Your task to perform on an android device: delete the emails in spam in the gmail app Image 0: 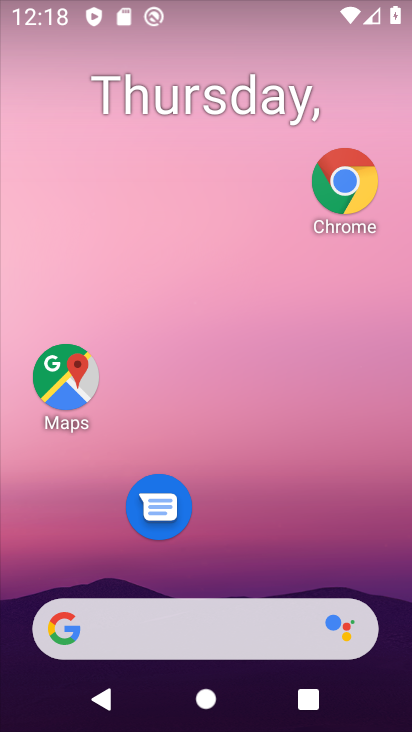
Step 0: drag from (172, 592) to (211, 342)
Your task to perform on an android device: delete the emails in spam in the gmail app Image 1: 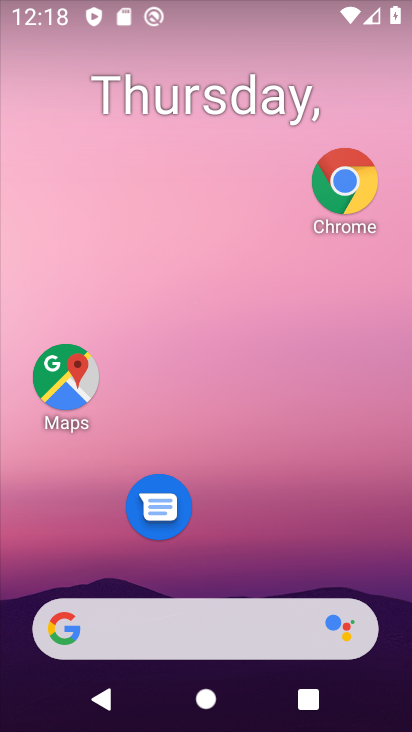
Step 1: drag from (163, 614) to (309, 0)
Your task to perform on an android device: delete the emails in spam in the gmail app Image 2: 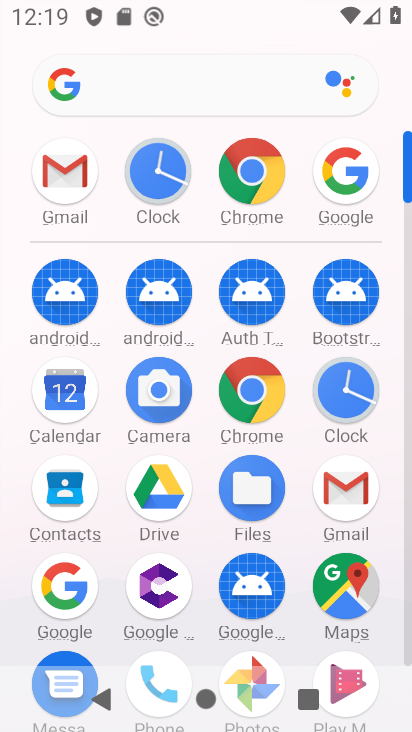
Step 2: click (349, 489)
Your task to perform on an android device: delete the emails in spam in the gmail app Image 3: 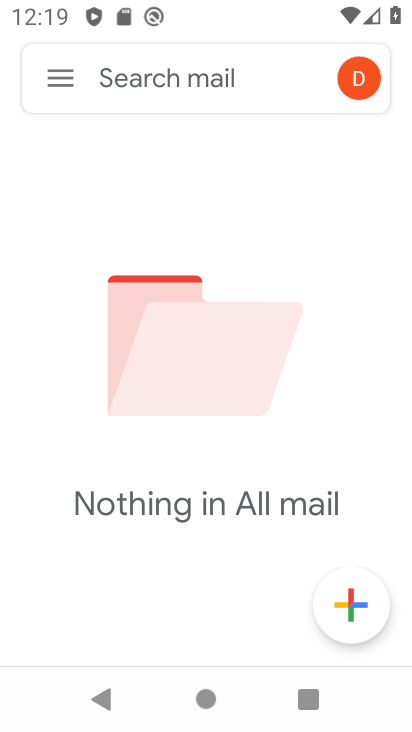
Step 3: click (69, 88)
Your task to perform on an android device: delete the emails in spam in the gmail app Image 4: 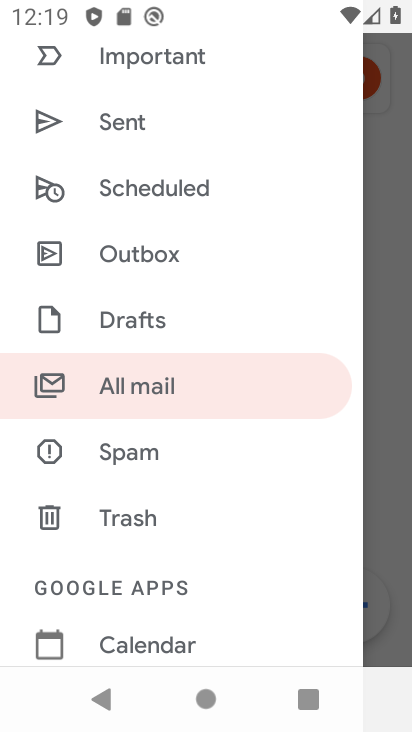
Step 4: click (137, 480)
Your task to perform on an android device: delete the emails in spam in the gmail app Image 5: 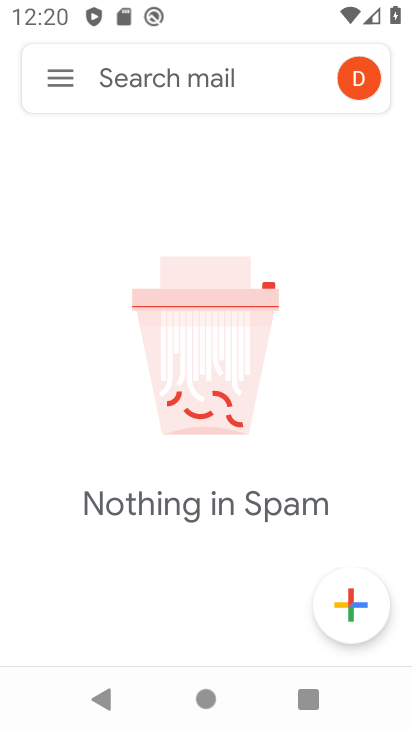
Step 5: click (83, 65)
Your task to perform on an android device: delete the emails in spam in the gmail app Image 6: 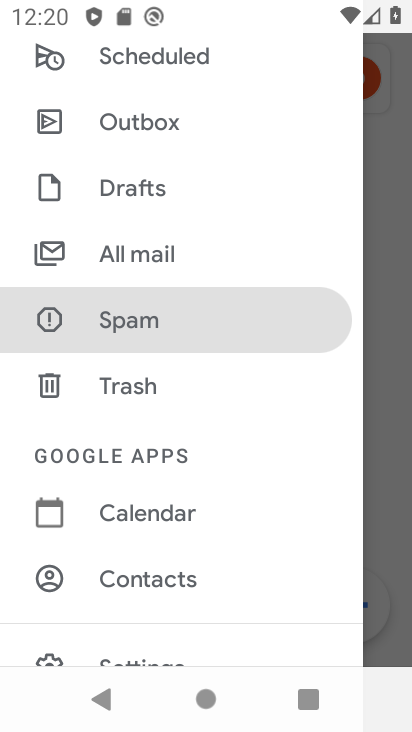
Step 6: task complete